Your task to perform on an android device: Is it going to rain tomorrow? Image 0: 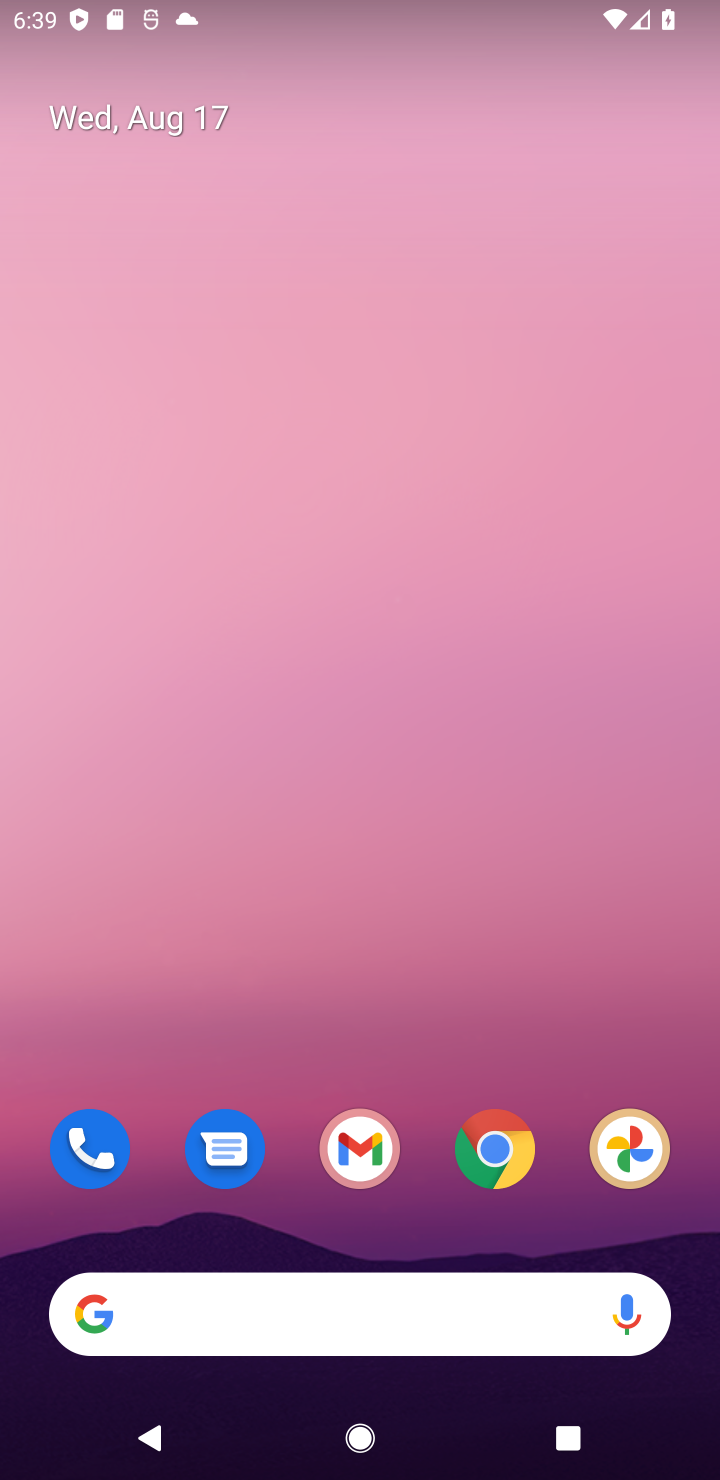
Step 0: click (78, 1318)
Your task to perform on an android device: Is it going to rain tomorrow? Image 1: 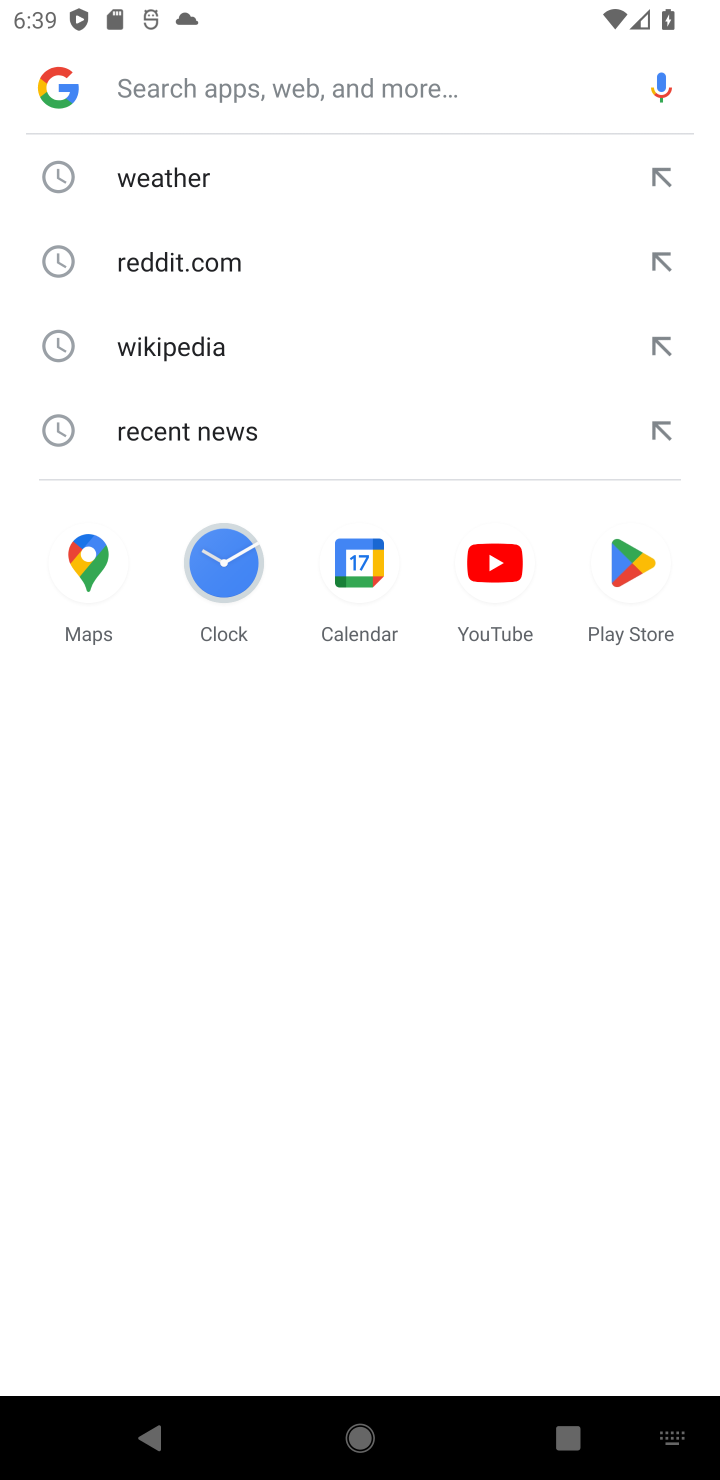
Step 1: click (163, 161)
Your task to perform on an android device: Is it going to rain tomorrow? Image 2: 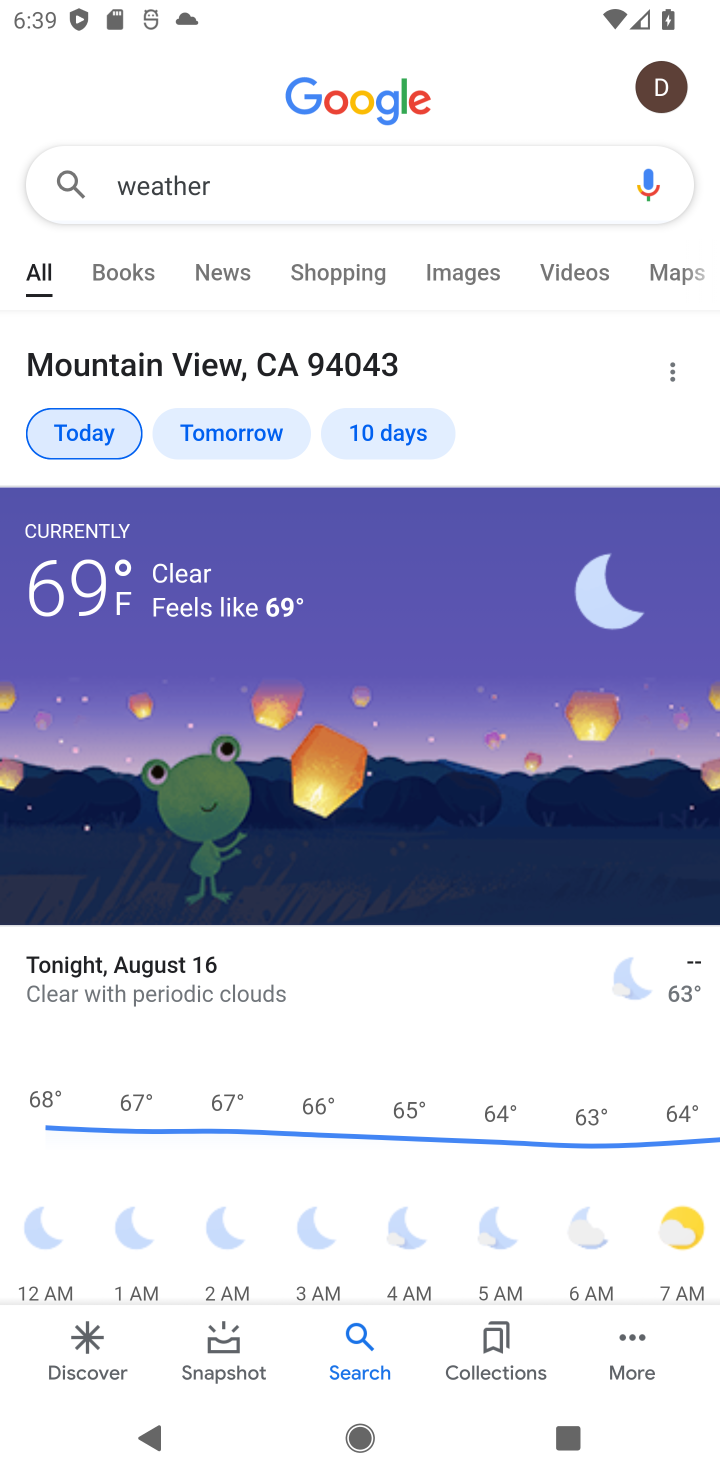
Step 2: click (221, 433)
Your task to perform on an android device: Is it going to rain tomorrow? Image 3: 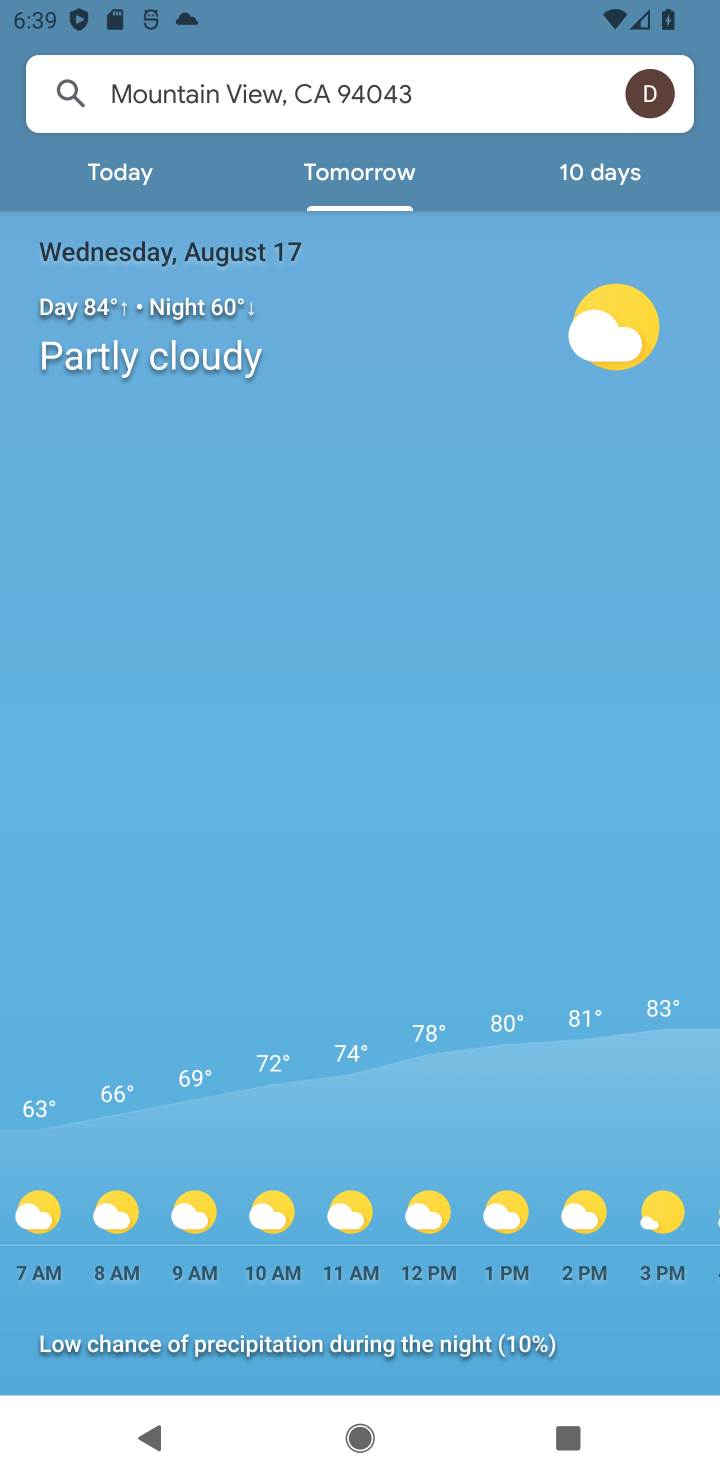
Step 3: task complete